Your task to perform on an android device: toggle translation in the chrome app Image 0: 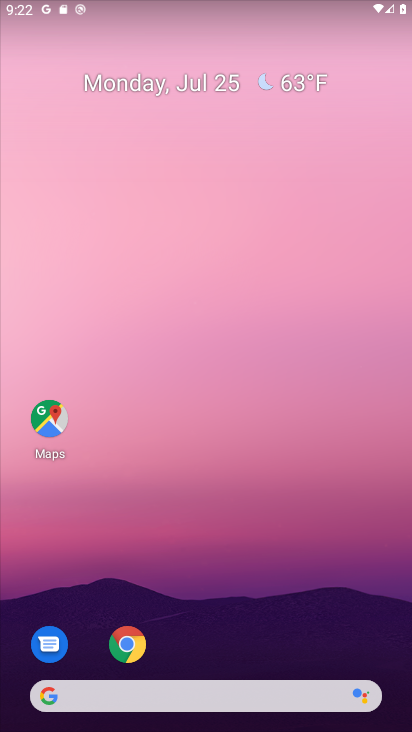
Step 0: drag from (207, 715) to (202, 265)
Your task to perform on an android device: toggle translation in the chrome app Image 1: 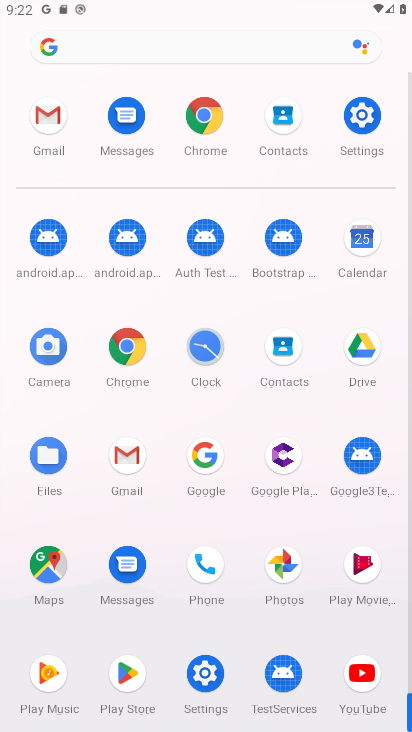
Step 1: click (195, 116)
Your task to perform on an android device: toggle translation in the chrome app Image 2: 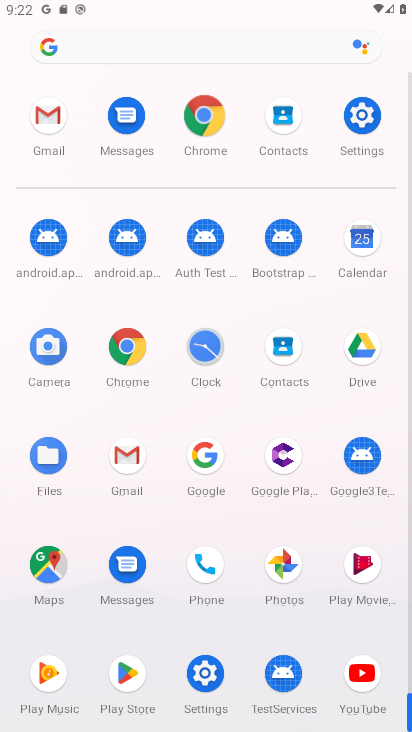
Step 2: click (198, 117)
Your task to perform on an android device: toggle translation in the chrome app Image 3: 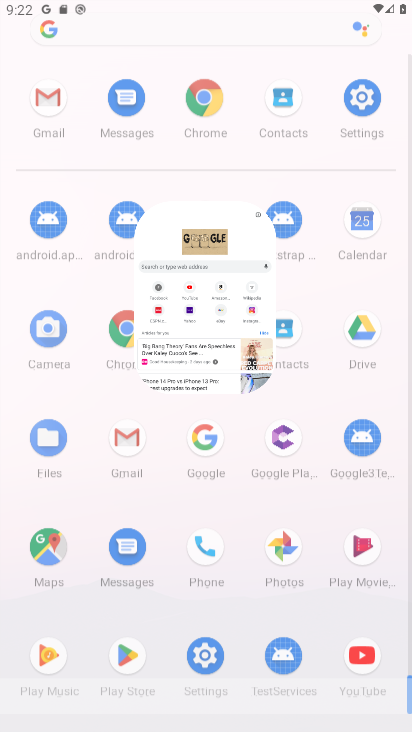
Step 3: click (199, 118)
Your task to perform on an android device: toggle translation in the chrome app Image 4: 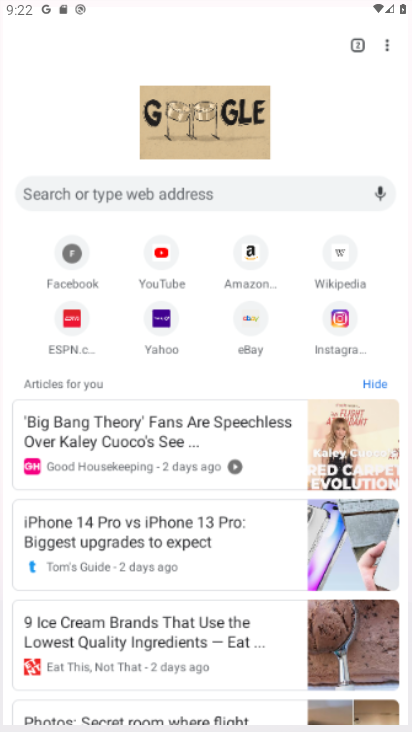
Step 4: click (195, 122)
Your task to perform on an android device: toggle translation in the chrome app Image 5: 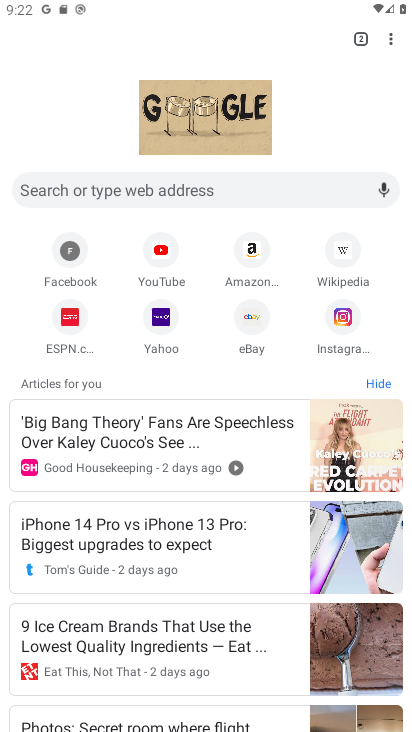
Step 5: click (385, 44)
Your task to perform on an android device: toggle translation in the chrome app Image 6: 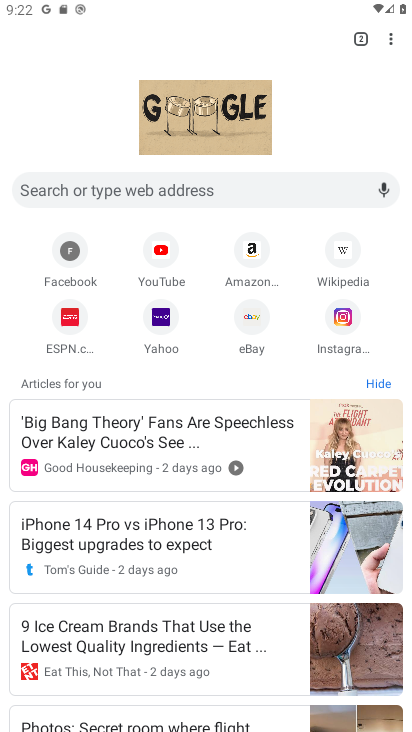
Step 6: click (392, 42)
Your task to perform on an android device: toggle translation in the chrome app Image 7: 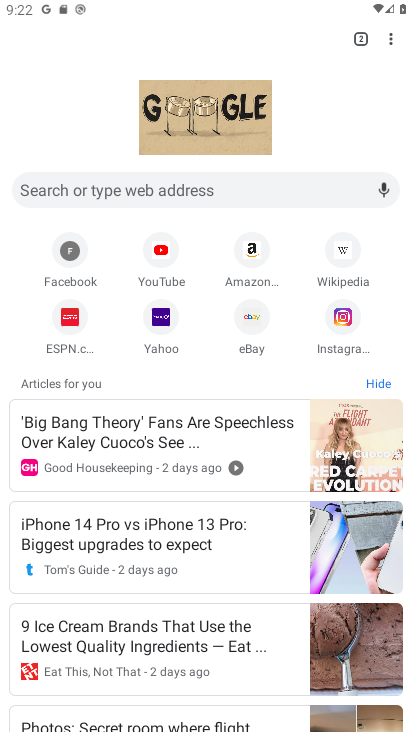
Step 7: drag from (389, 31) to (253, 340)
Your task to perform on an android device: toggle translation in the chrome app Image 8: 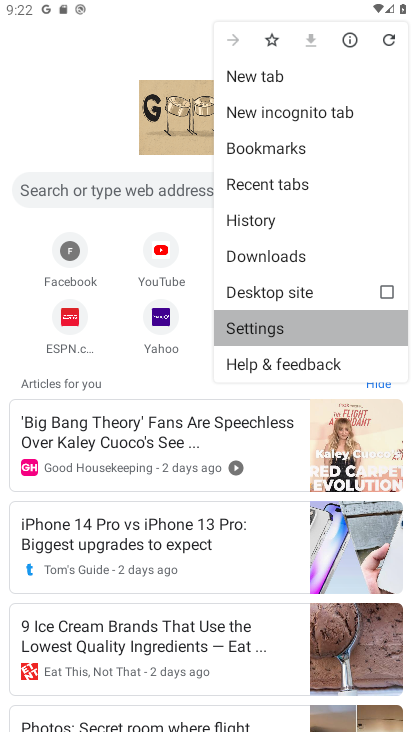
Step 8: click (256, 332)
Your task to perform on an android device: toggle translation in the chrome app Image 9: 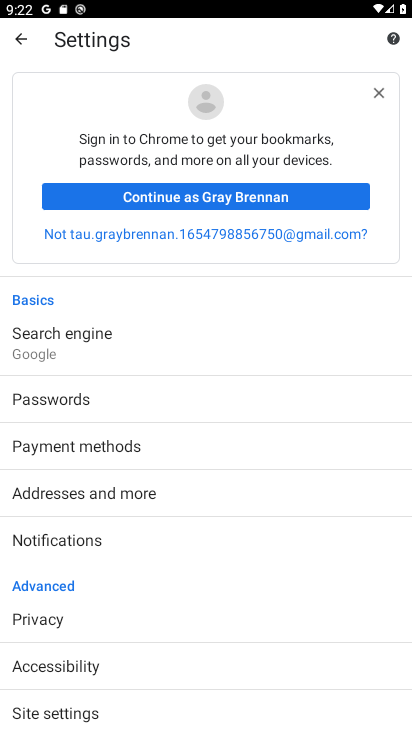
Step 9: drag from (75, 608) to (50, 330)
Your task to perform on an android device: toggle translation in the chrome app Image 10: 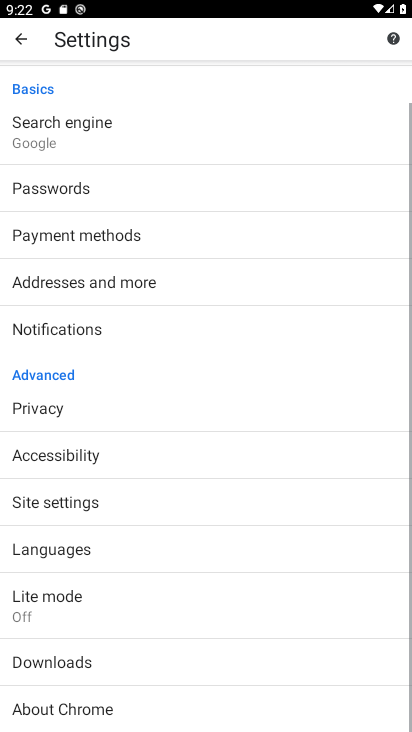
Step 10: drag from (120, 558) to (126, 300)
Your task to perform on an android device: toggle translation in the chrome app Image 11: 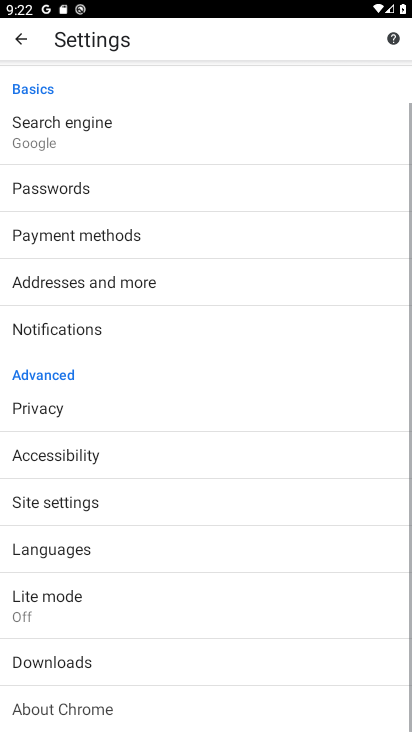
Step 11: drag from (126, 449) to (159, 331)
Your task to perform on an android device: toggle translation in the chrome app Image 12: 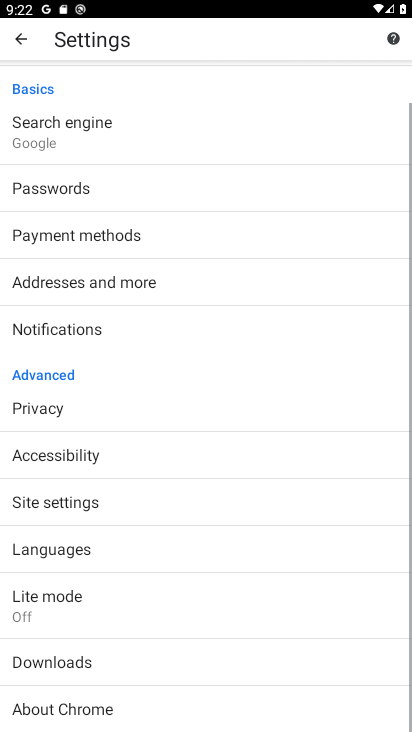
Step 12: click (55, 552)
Your task to perform on an android device: toggle translation in the chrome app Image 13: 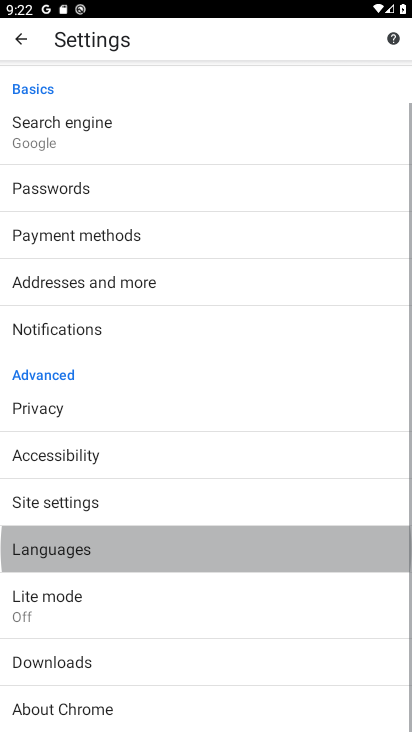
Step 13: click (60, 549)
Your task to perform on an android device: toggle translation in the chrome app Image 14: 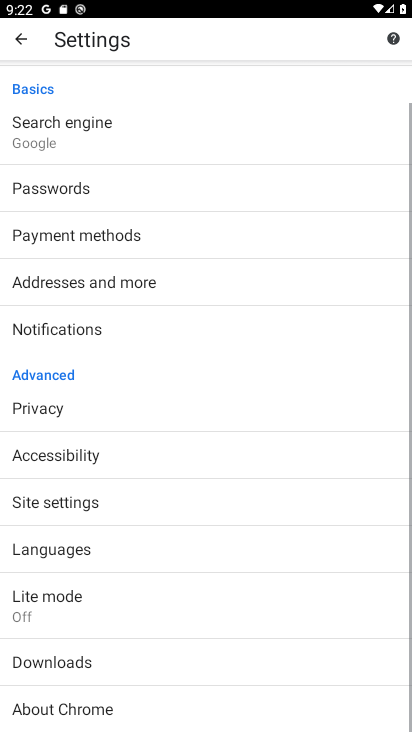
Step 14: click (59, 549)
Your task to perform on an android device: toggle translation in the chrome app Image 15: 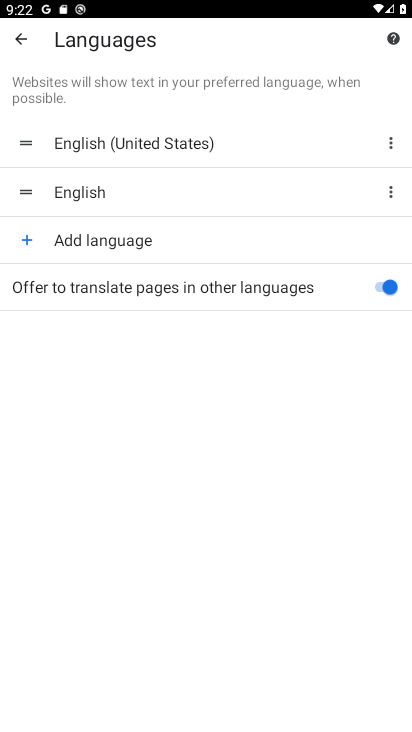
Step 15: click (397, 286)
Your task to perform on an android device: toggle translation in the chrome app Image 16: 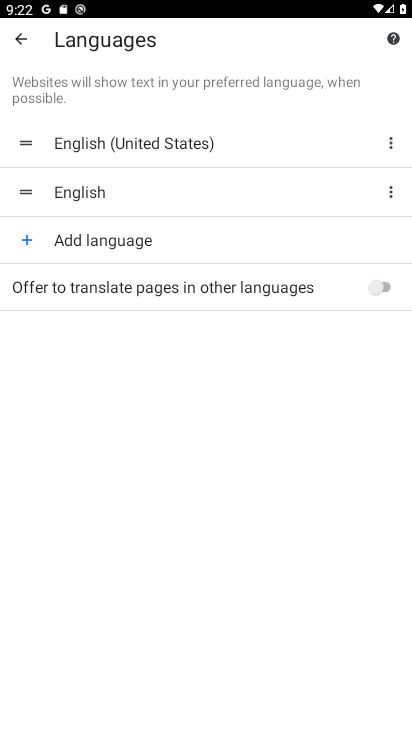
Step 16: task complete